Your task to perform on an android device: Open Wikipedia Image 0: 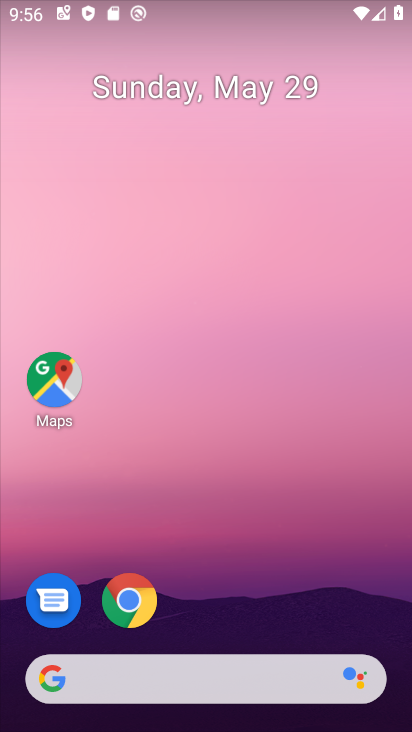
Step 0: click (128, 604)
Your task to perform on an android device: Open Wikipedia Image 1: 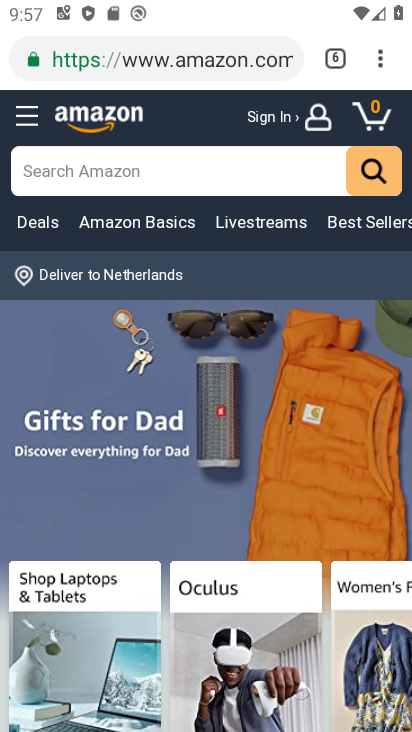
Step 1: click (382, 63)
Your task to perform on an android device: Open Wikipedia Image 2: 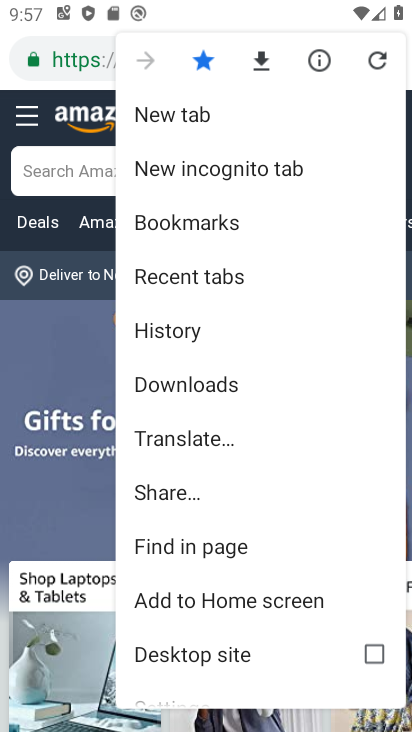
Step 2: click (178, 111)
Your task to perform on an android device: Open Wikipedia Image 3: 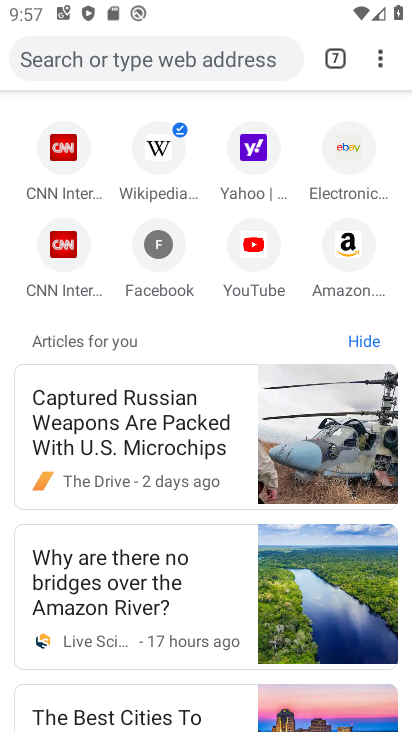
Step 3: click (155, 154)
Your task to perform on an android device: Open Wikipedia Image 4: 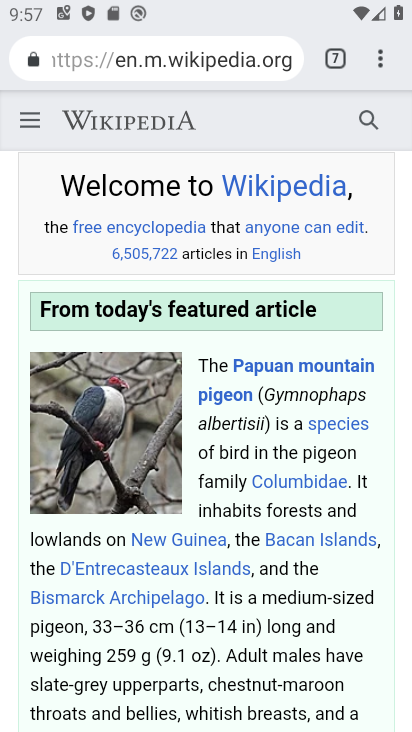
Step 4: task complete